Your task to perform on an android device: Is it going to rain this weekend? Image 0: 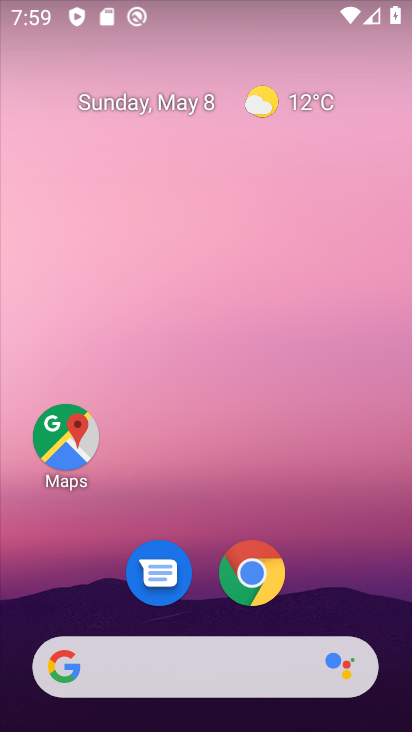
Step 0: click (260, 98)
Your task to perform on an android device: Is it going to rain this weekend? Image 1: 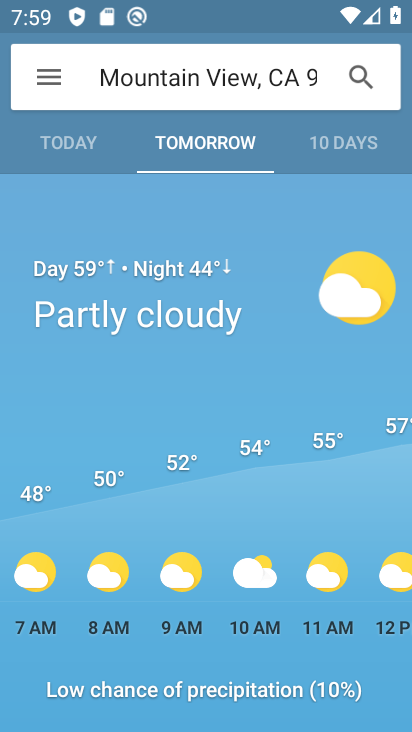
Step 1: click (333, 138)
Your task to perform on an android device: Is it going to rain this weekend? Image 2: 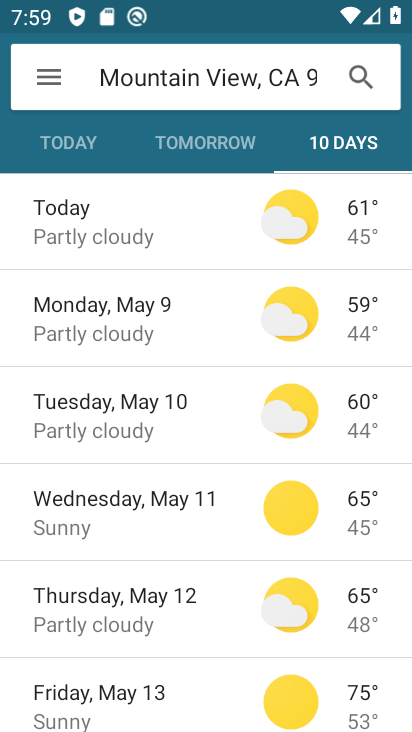
Step 2: drag from (155, 665) to (158, 467)
Your task to perform on an android device: Is it going to rain this weekend? Image 3: 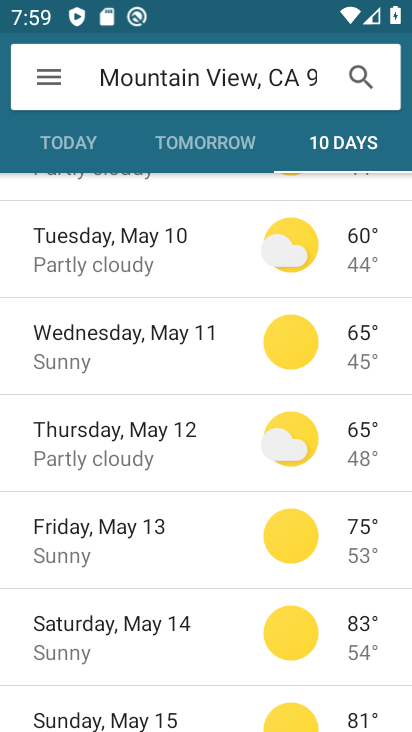
Step 3: click (111, 625)
Your task to perform on an android device: Is it going to rain this weekend? Image 4: 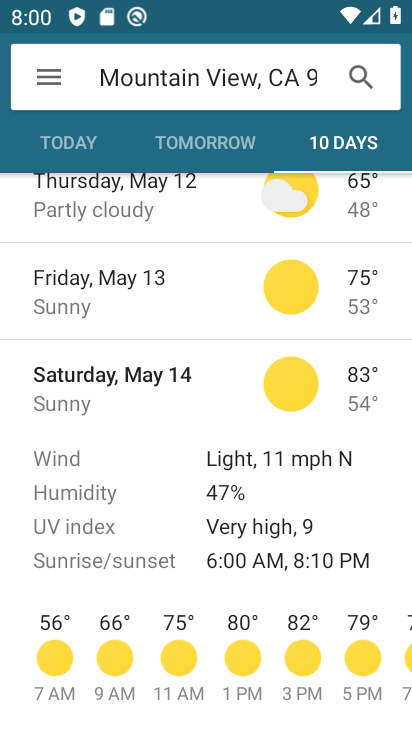
Step 4: task complete